Your task to perform on an android device: What's the weather today? Image 0: 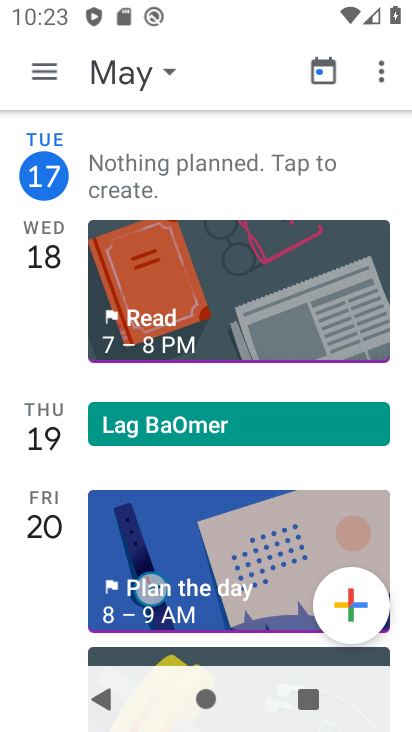
Step 0: press home button
Your task to perform on an android device: What's the weather today? Image 1: 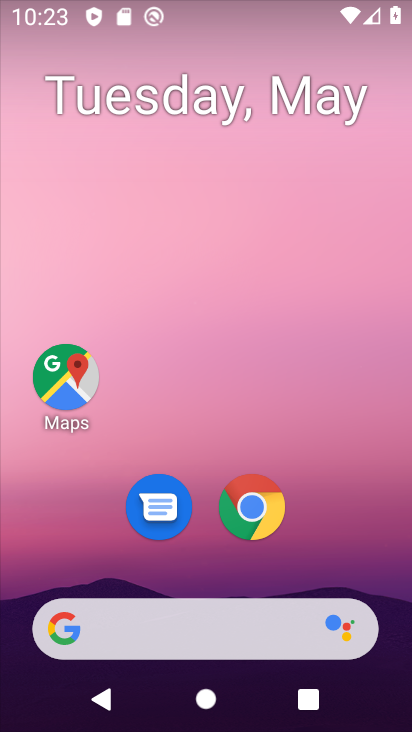
Step 1: click (285, 633)
Your task to perform on an android device: What's the weather today? Image 2: 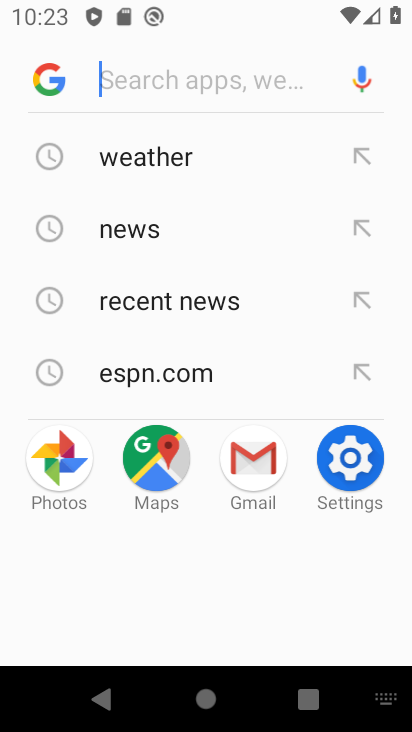
Step 2: click (169, 150)
Your task to perform on an android device: What's the weather today? Image 3: 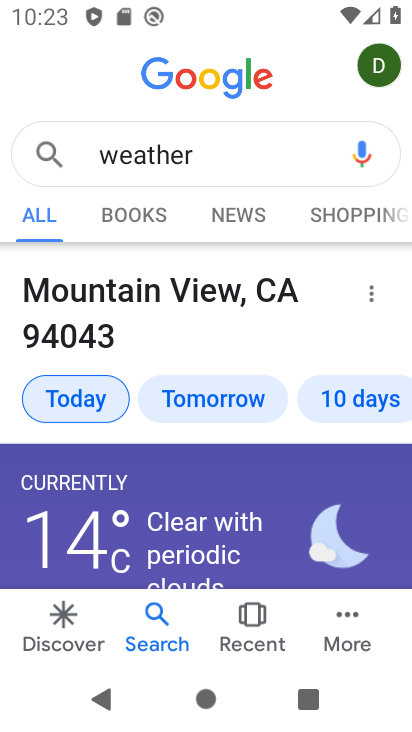
Step 3: task complete